Your task to perform on an android device: Open Reddit.com Image 0: 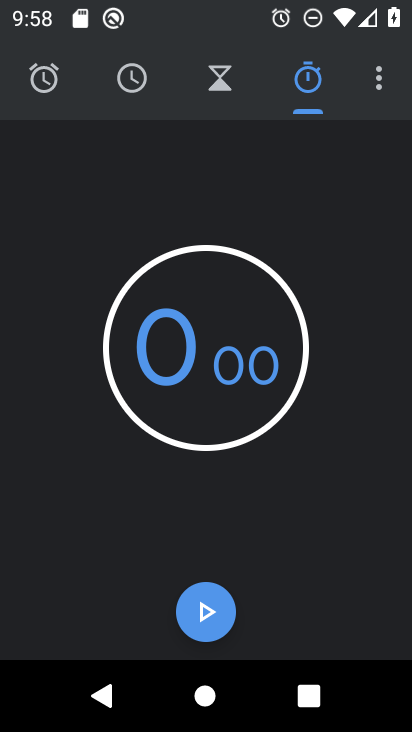
Step 0: press home button
Your task to perform on an android device: Open Reddit.com Image 1: 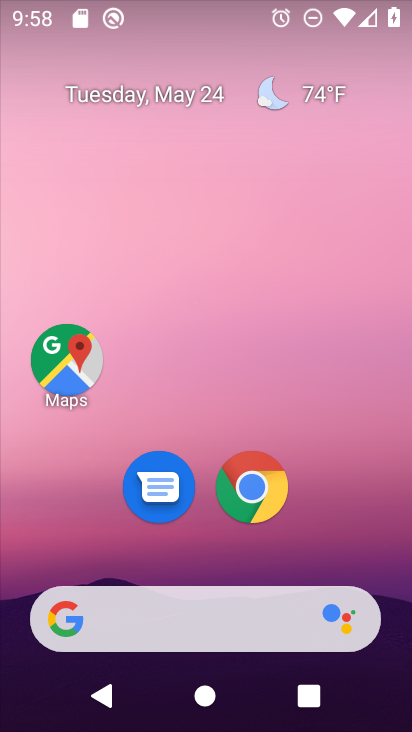
Step 1: click (246, 492)
Your task to perform on an android device: Open Reddit.com Image 2: 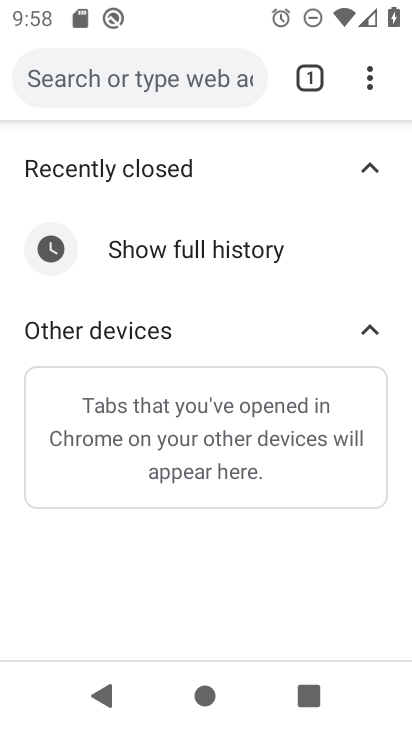
Step 2: click (91, 88)
Your task to perform on an android device: Open Reddit.com Image 3: 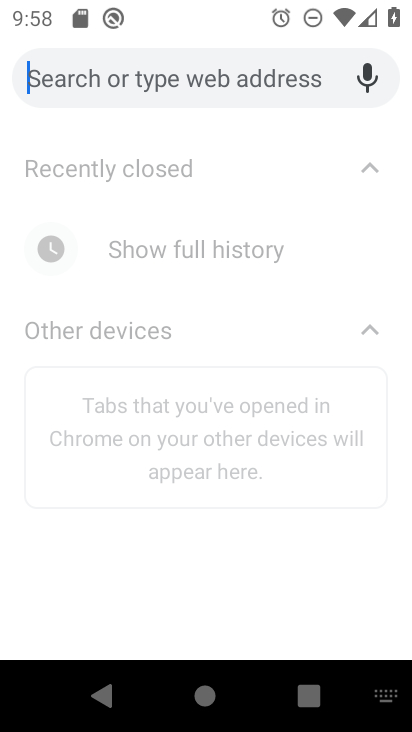
Step 3: type "reddit.com"
Your task to perform on an android device: Open Reddit.com Image 4: 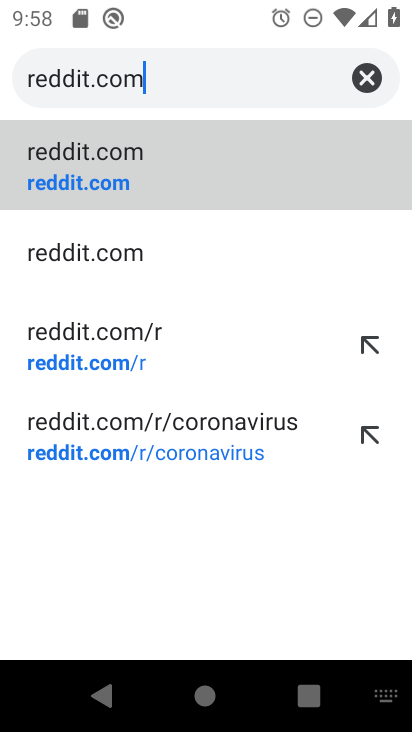
Step 4: click (96, 170)
Your task to perform on an android device: Open Reddit.com Image 5: 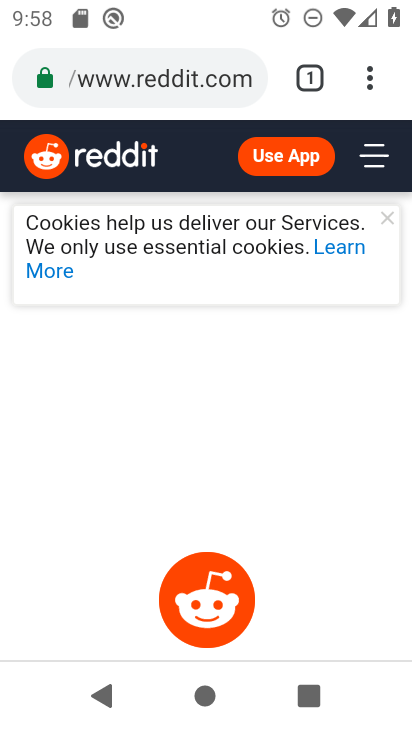
Step 5: task complete